Your task to perform on an android device: What is the recent news? Image 0: 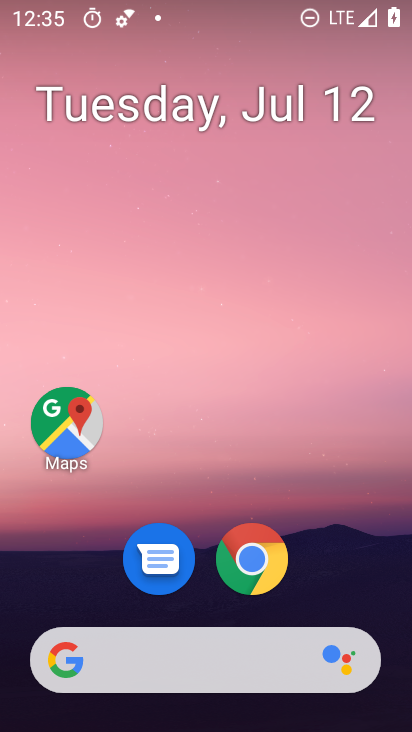
Step 0: drag from (181, 617) to (257, 55)
Your task to perform on an android device: What is the recent news? Image 1: 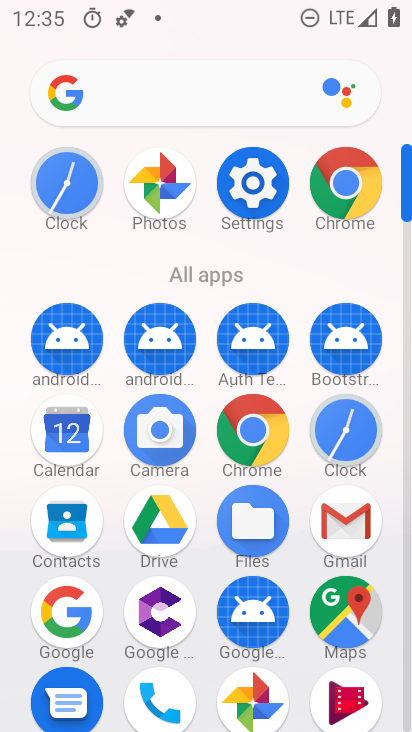
Step 1: click (196, 95)
Your task to perform on an android device: What is the recent news? Image 2: 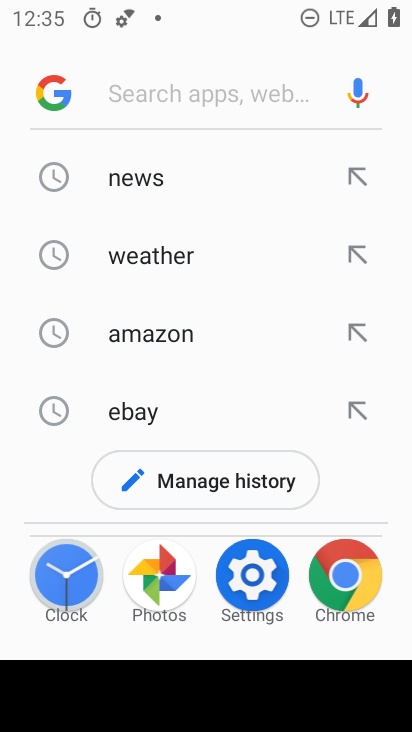
Step 2: click (153, 81)
Your task to perform on an android device: What is the recent news? Image 3: 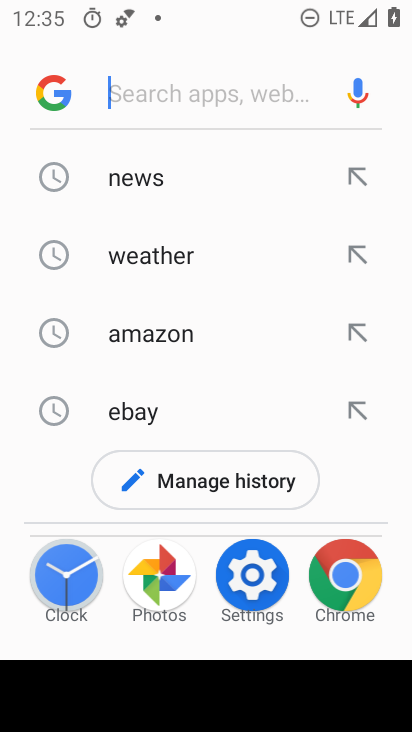
Step 3: type "recent news"
Your task to perform on an android device: What is the recent news? Image 4: 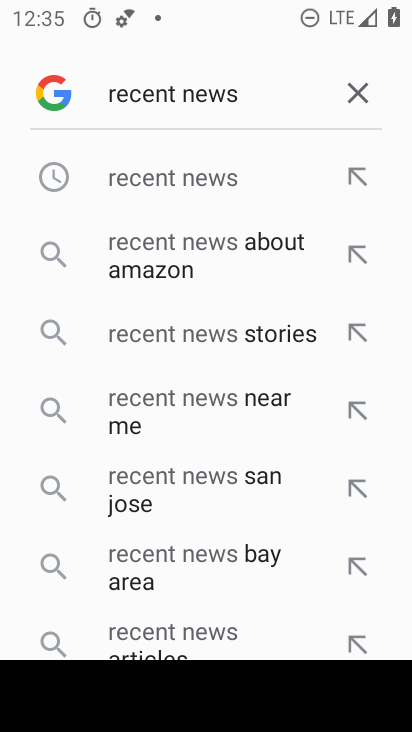
Step 4: click (204, 176)
Your task to perform on an android device: What is the recent news? Image 5: 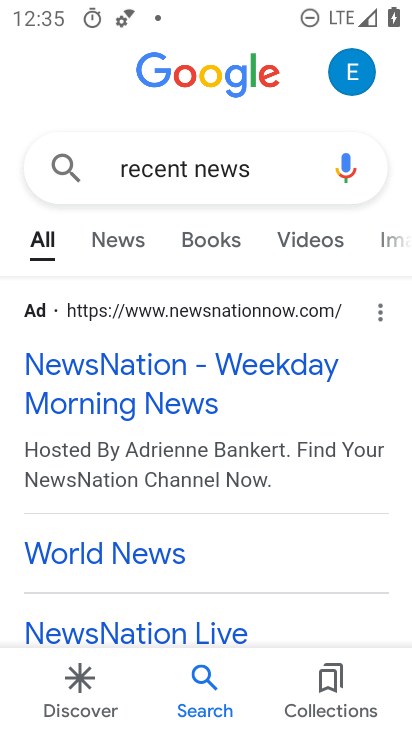
Step 5: task complete